Your task to perform on an android device: check the backup settings in the google photos Image 0: 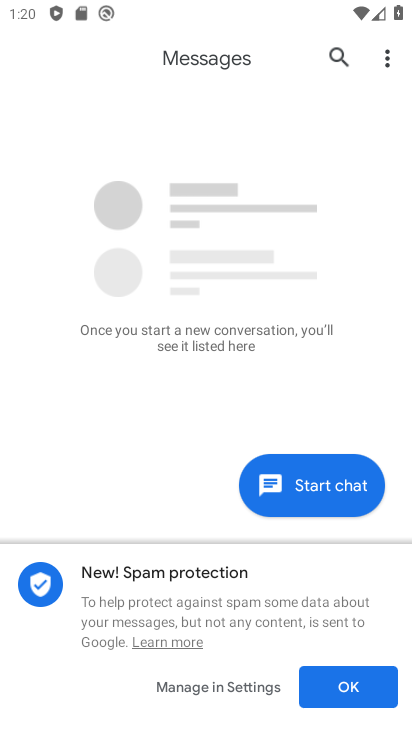
Step 0: press home button
Your task to perform on an android device: check the backup settings in the google photos Image 1: 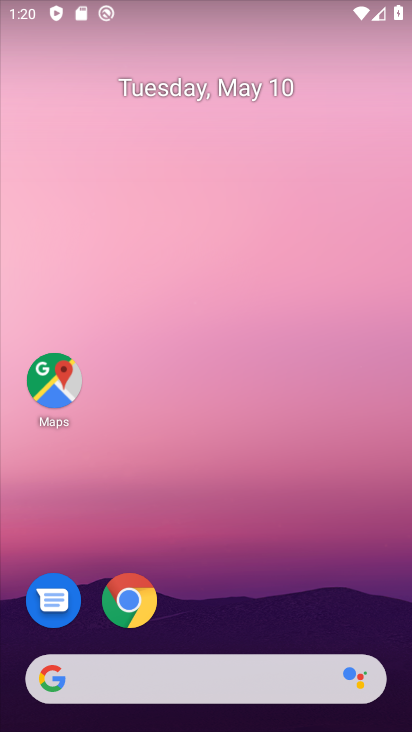
Step 1: drag from (190, 628) to (121, 52)
Your task to perform on an android device: check the backup settings in the google photos Image 2: 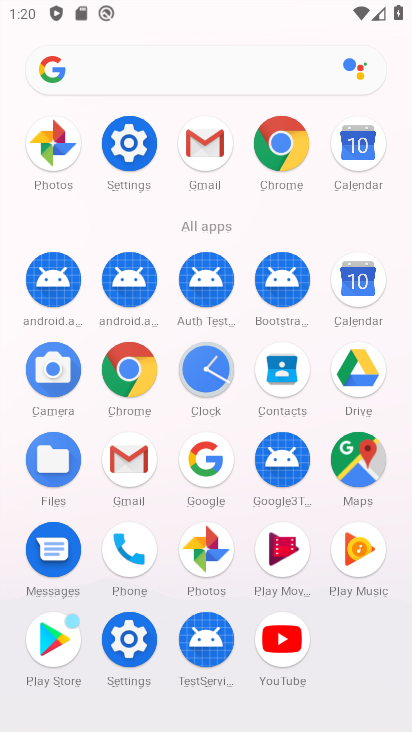
Step 2: click (206, 568)
Your task to perform on an android device: check the backup settings in the google photos Image 3: 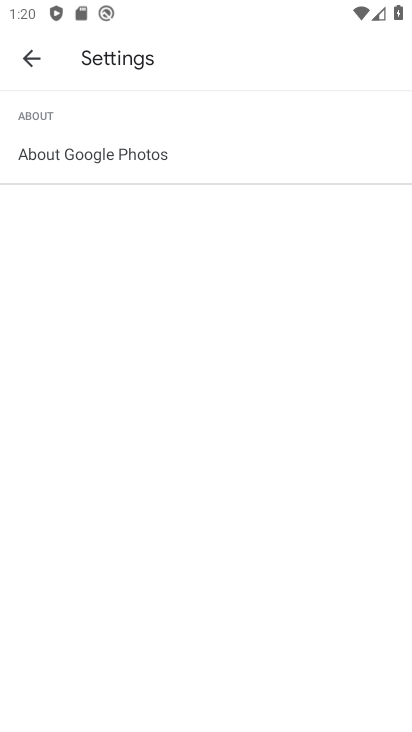
Step 3: click (26, 58)
Your task to perform on an android device: check the backup settings in the google photos Image 4: 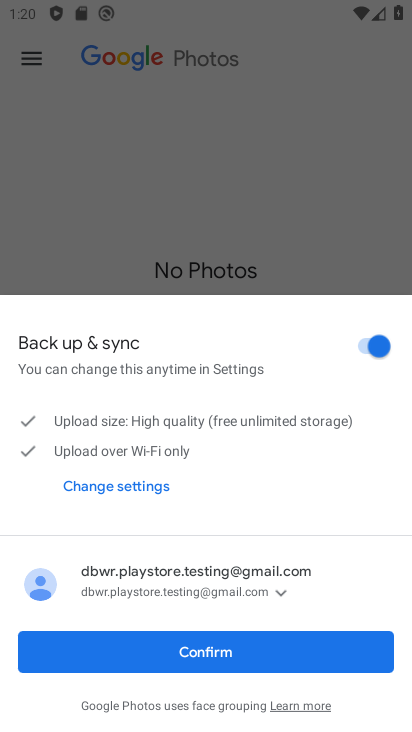
Step 4: click (230, 643)
Your task to perform on an android device: check the backup settings in the google photos Image 5: 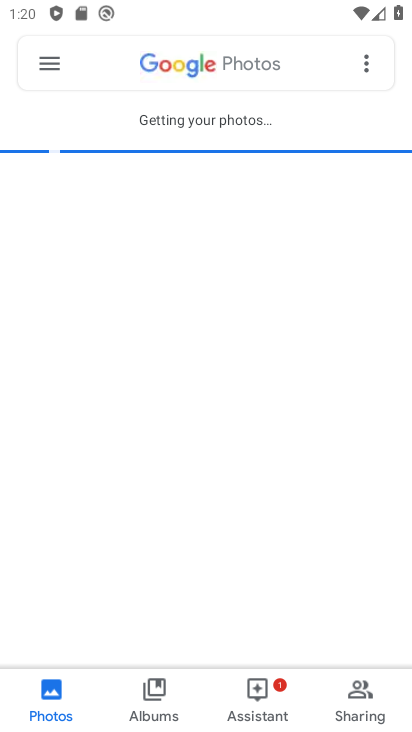
Step 5: click (32, 56)
Your task to perform on an android device: check the backup settings in the google photos Image 6: 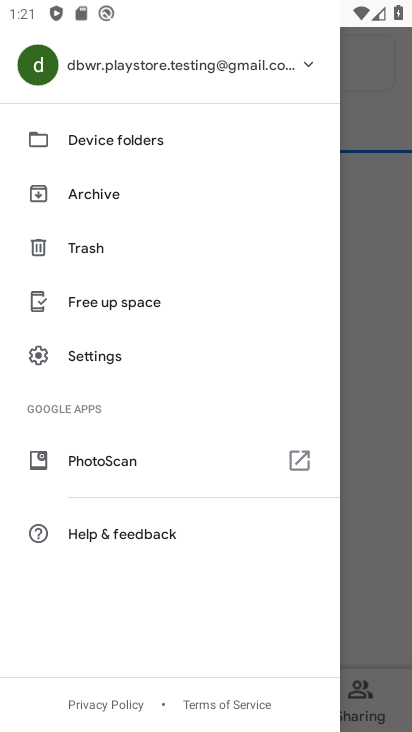
Step 6: click (103, 361)
Your task to perform on an android device: check the backup settings in the google photos Image 7: 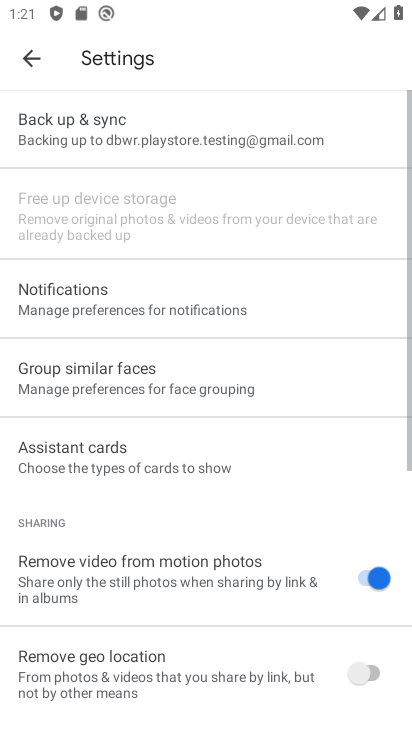
Step 7: click (73, 101)
Your task to perform on an android device: check the backup settings in the google photos Image 8: 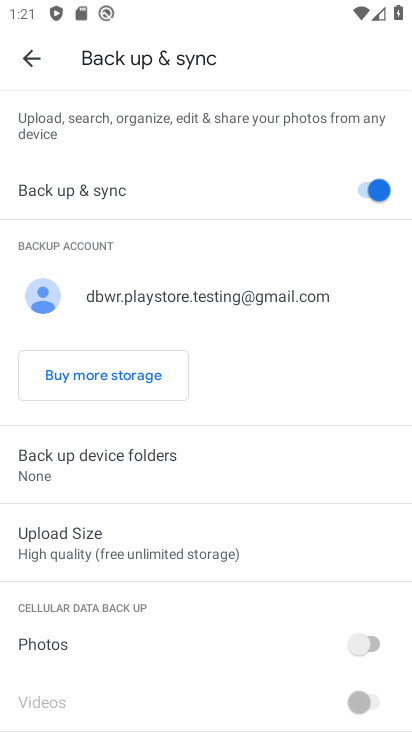
Step 8: task complete